Your task to perform on an android device: turn on data saver in the chrome app Image 0: 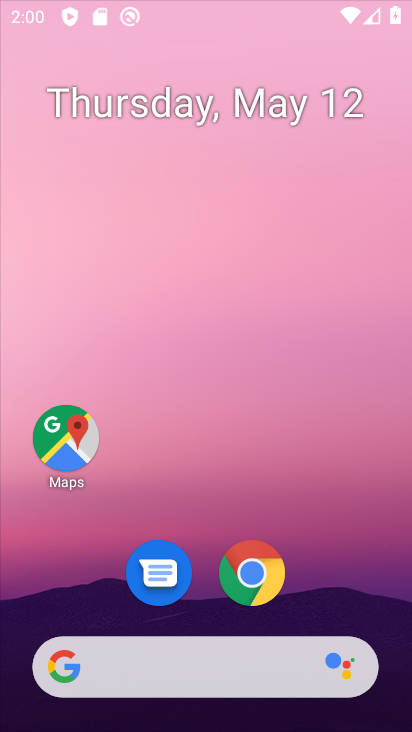
Step 0: click (228, 175)
Your task to perform on an android device: turn on data saver in the chrome app Image 1: 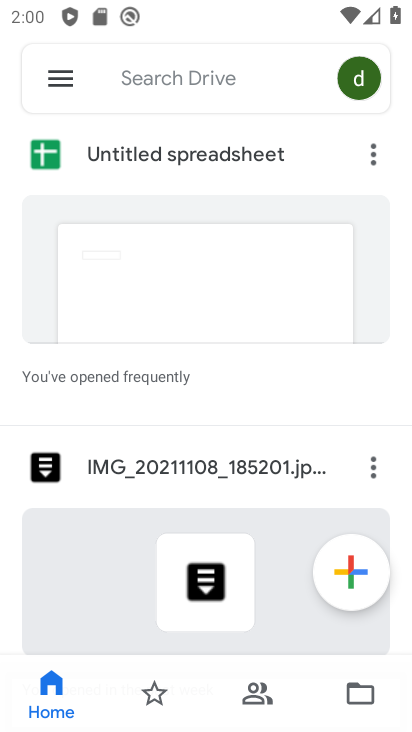
Step 1: press home button
Your task to perform on an android device: turn on data saver in the chrome app Image 2: 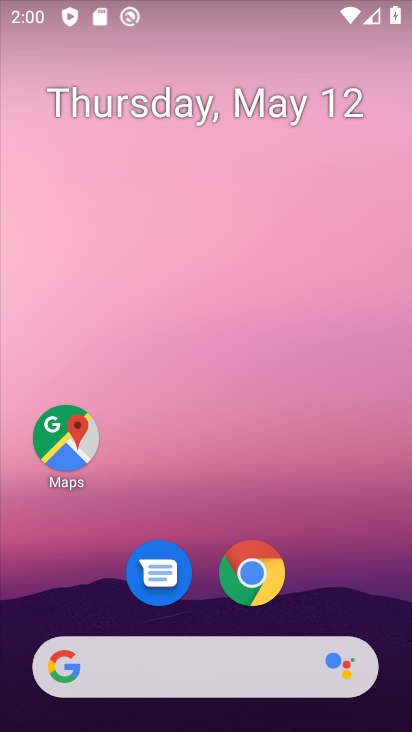
Step 2: click (53, 429)
Your task to perform on an android device: turn on data saver in the chrome app Image 3: 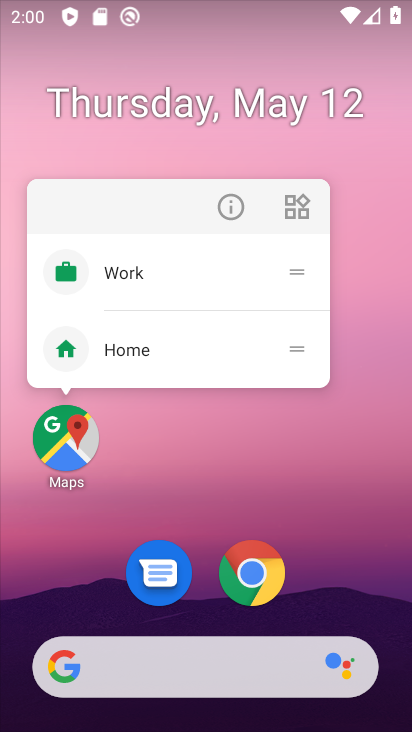
Step 3: click (282, 459)
Your task to perform on an android device: turn on data saver in the chrome app Image 4: 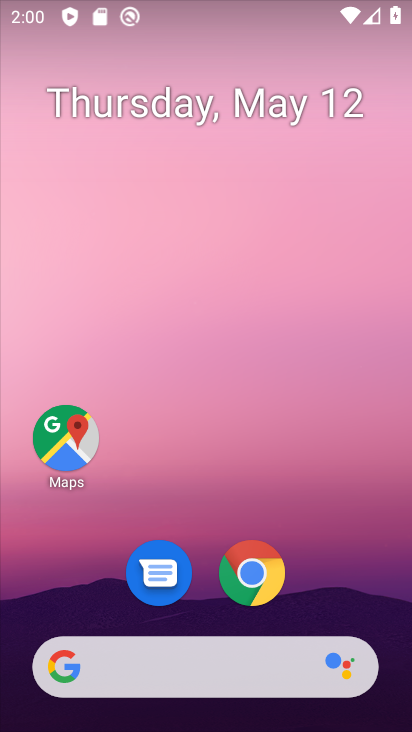
Step 4: click (259, 579)
Your task to perform on an android device: turn on data saver in the chrome app Image 5: 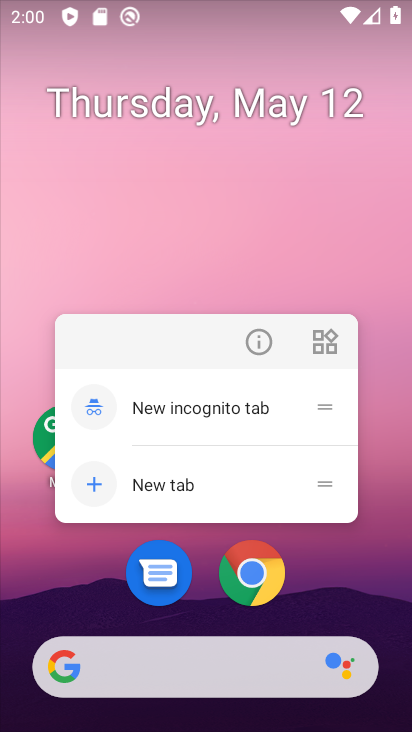
Step 5: click (262, 338)
Your task to perform on an android device: turn on data saver in the chrome app Image 6: 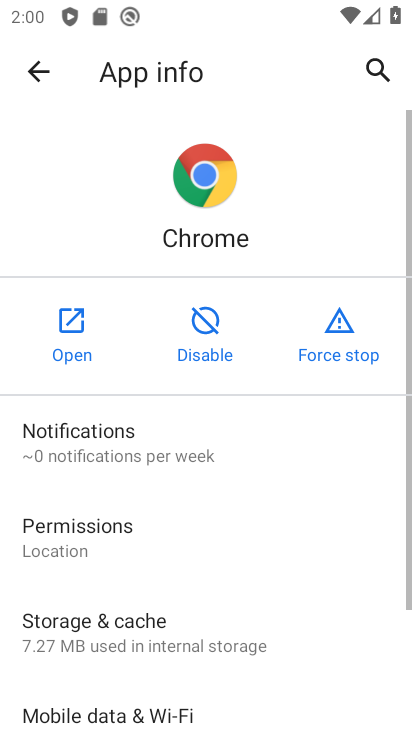
Step 6: click (90, 341)
Your task to perform on an android device: turn on data saver in the chrome app Image 7: 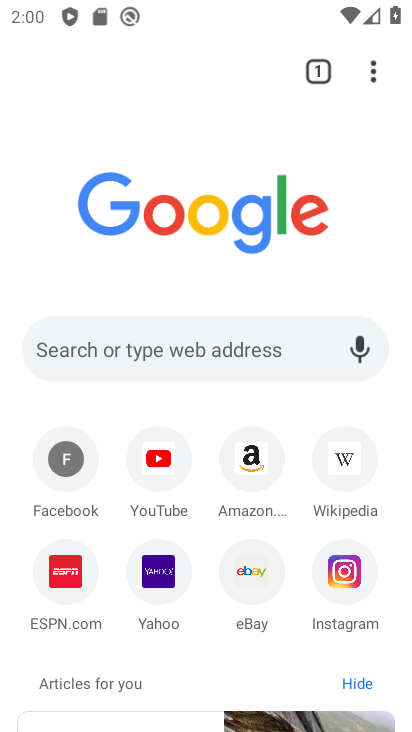
Step 7: drag from (203, 645) to (219, 173)
Your task to perform on an android device: turn on data saver in the chrome app Image 8: 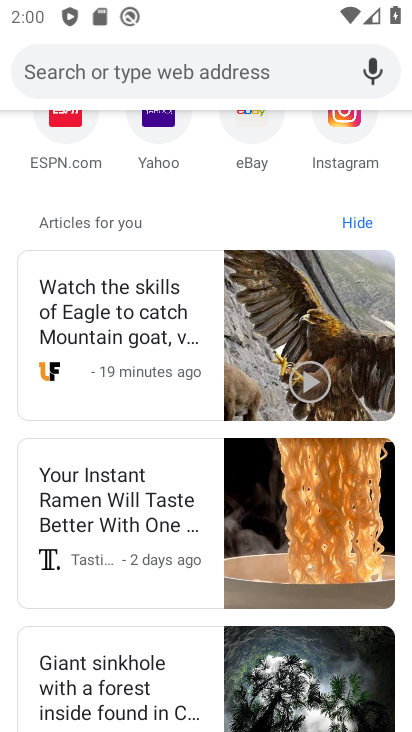
Step 8: drag from (253, 182) to (351, 562)
Your task to perform on an android device: turn on data saver in the chrome app Image 9: 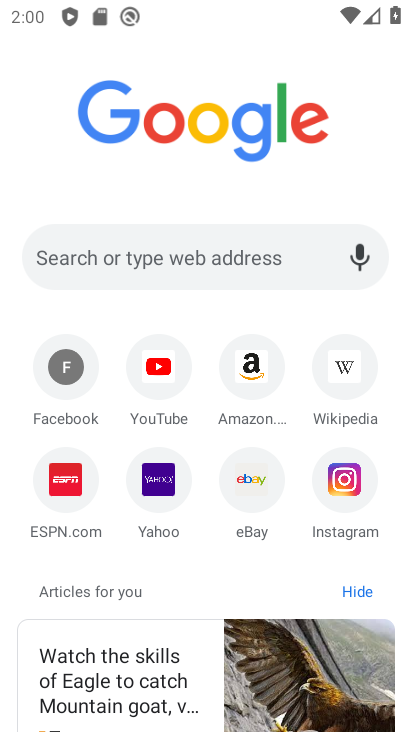
Step 9: drag from (211, 176) to (252, 366)
Your task to perform on an android device: turn on data saver in the chrome app Image 10: 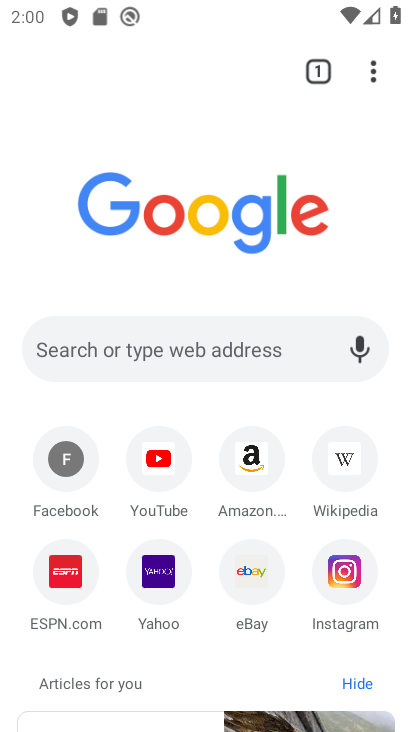
Step 10: click (374, 74)
Your task to perform on an android device: turn on data saver in the chrome app Image 11: 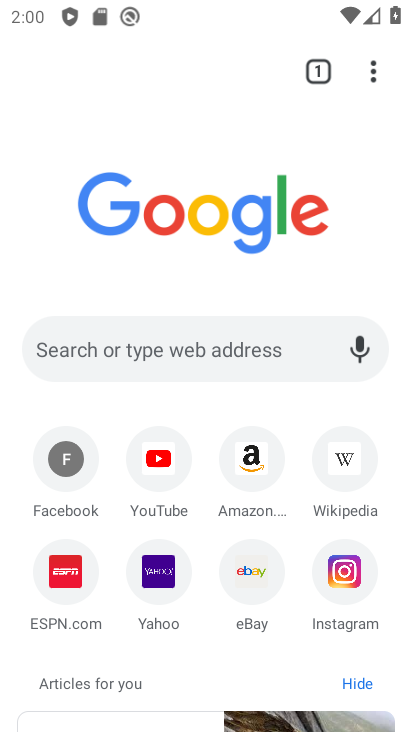
Step 11: drag from (265, 238) to (262, 521)
Your task to perform on an android device: turn on data saver in the chrome app Image 12: 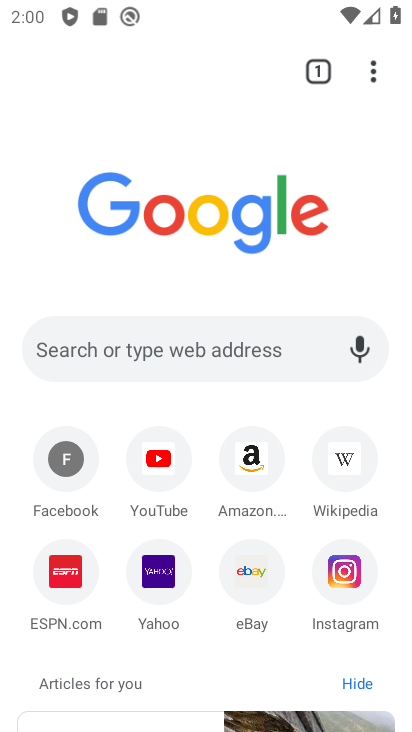
Step 12: click (371, 63)
Your task to perform on an android device: turn on data saver in the chrome app Image 13: 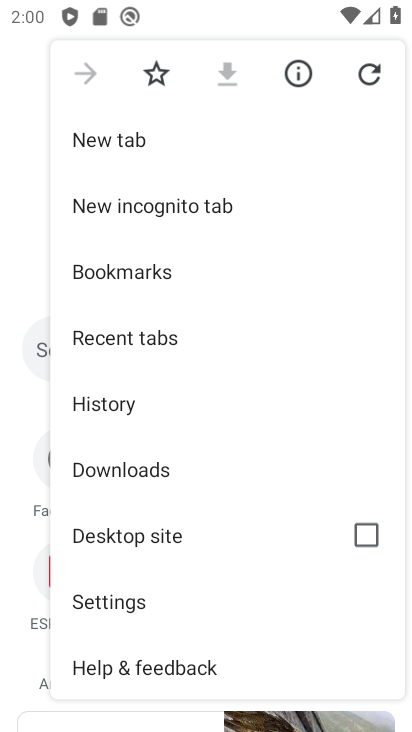
Step 13: drag from (212, 519) to (274, 76)
Your task to perform on an android device: turn on data saver in the chrome app Image 14: 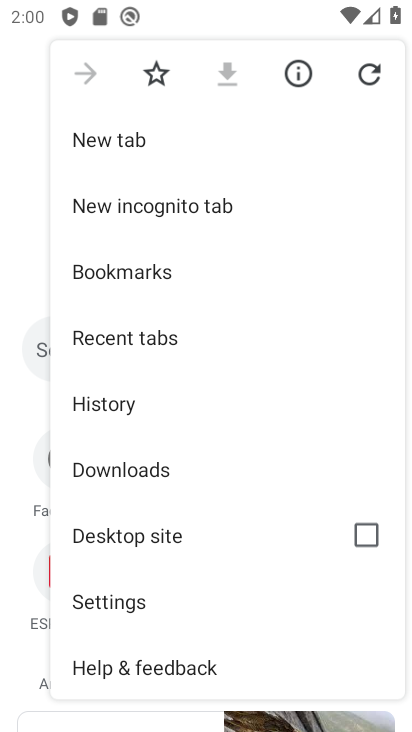
Step 14: click (132, 602)
Your task to perform on an android device: turn on data saver in the chrome app Image 15: 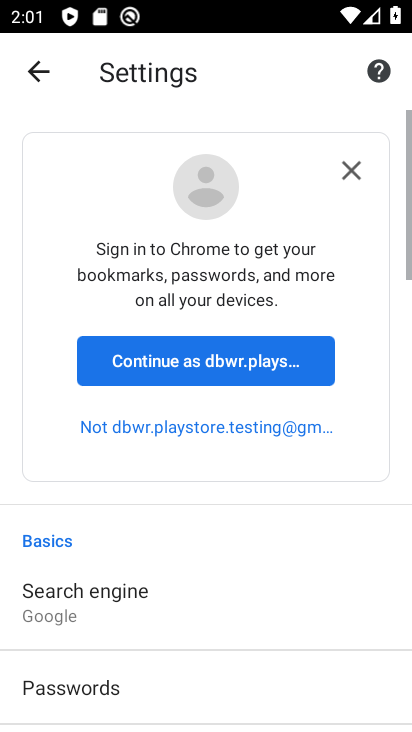
Step 15: drag from (215, 587) to (318, 123)
Your task to perform on an android device: turn on data saver in the chrome app Image 16: 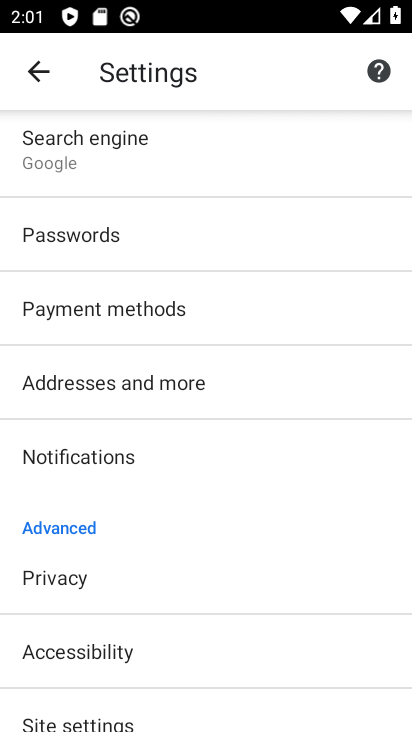
Step 16: drag from (178, 606) to (238, 177)
Your task to perform on an android device: turn on data saver in the chrome app Image 17: 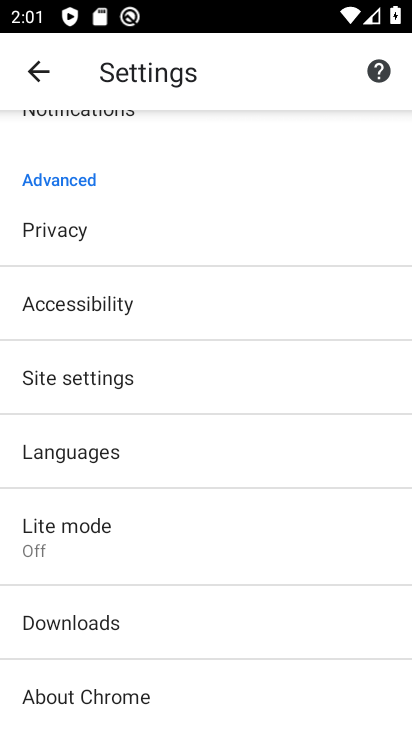
Step 17: click (103, 544)
Your task to perform on an android device: turn on data saver in the chrome app Image 18: 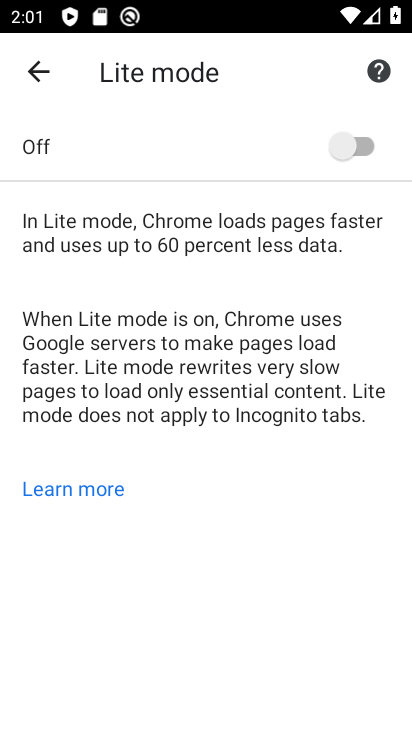
Step 18: click (332, 134)
Your task to perform on an android device: turn on data saver in the chrome app Image 19: 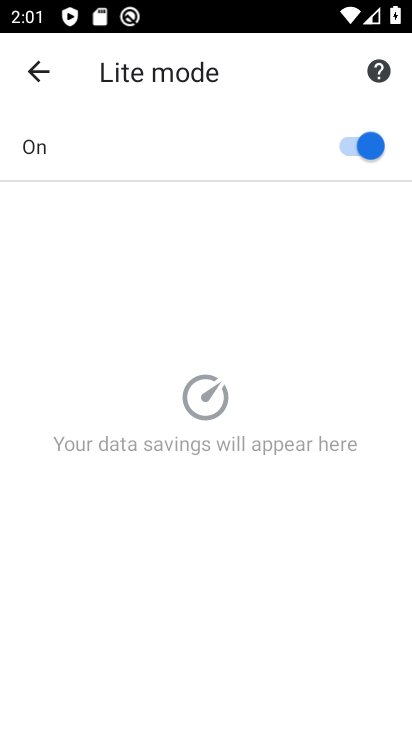
Step 19: task complete